Your task to perform on an android device: refresh tabs in the chrome app Image 0: 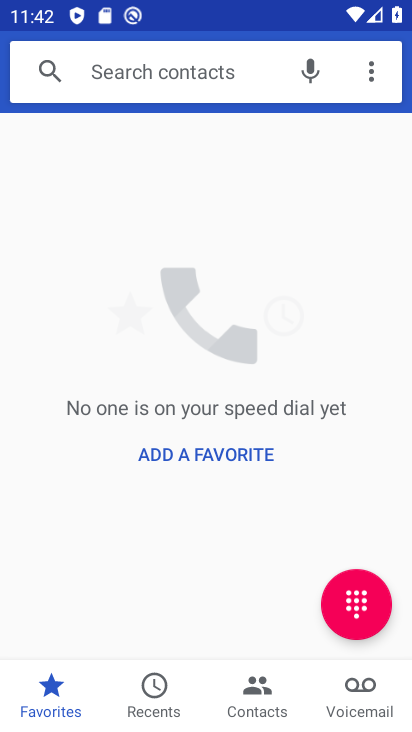
Step 0: press home button
Your task to perform on an android device: refresh tabs in the chrome app Image 1: 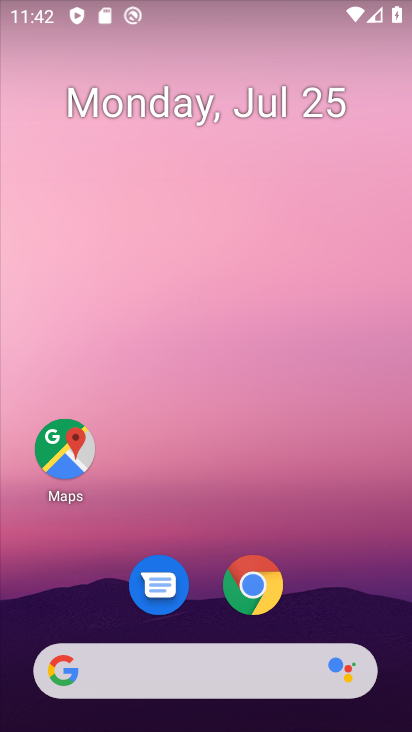
Step 1: click (259, 608)
Your task to perform on an android device: refresh tabs in the chrome app Image 2: 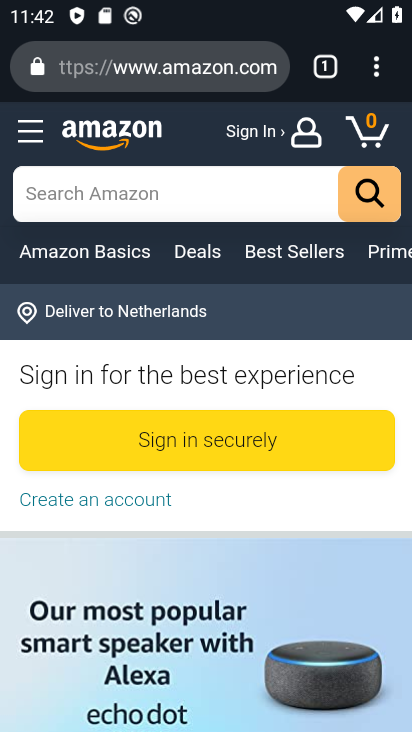
Step 2: click (375, 64)
Your task to perform on an android device: refresh tabs in the chrome app Image 3: 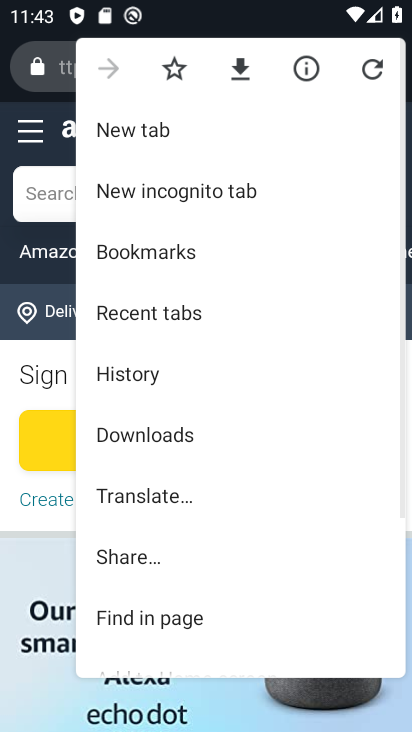
Step 3: click (367, 68)
Your task to perform on an android device: refresh tabs in the chrome app Image 4: 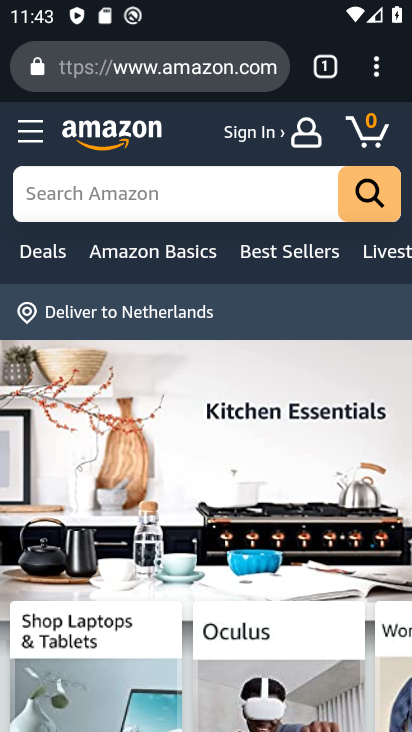
Step 4: task complete